Your task to perform on an android device: Open privacy settings Image 0: 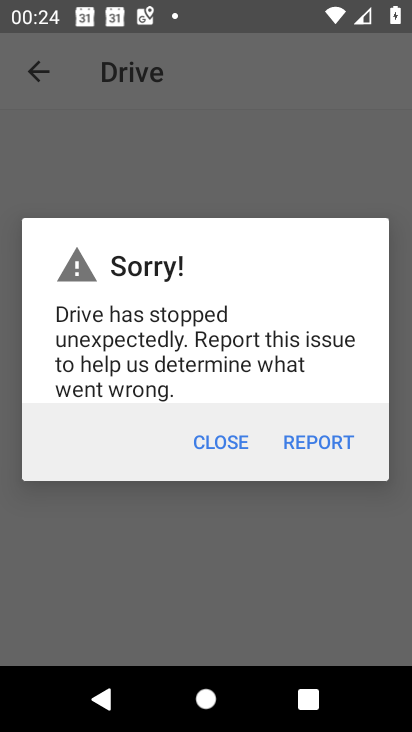
Step 0: press home button
Your task to perform on an android device: Open privacy settings Image 1: 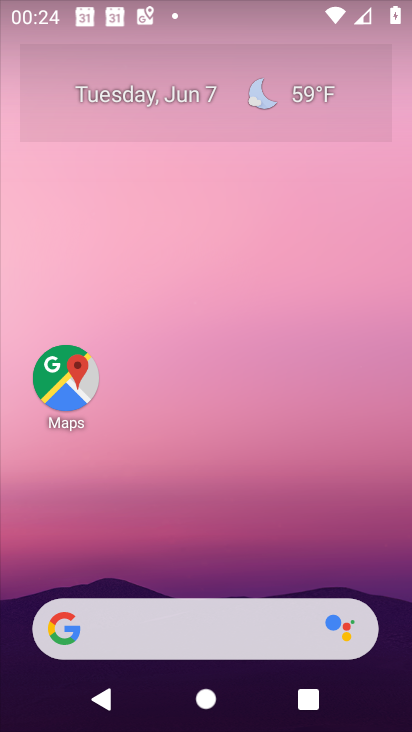
Step 1: drag from (277, 222) to (279, 175)
Your task to perform on an android device: Open privacy settings Image 2: 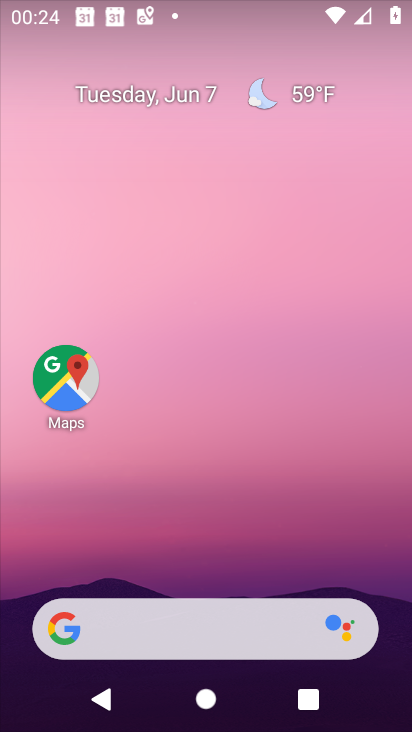
Step 2: drag from (210, 528) to (238, 19)
Your task to perform on an android device: Open privacy settings Image 3: 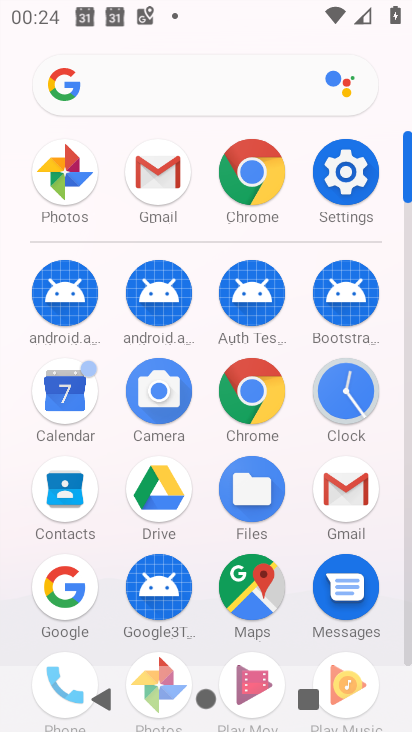
Step 3: click (338, 171)
Your task to perform on an android device: Open privacy settings Image 4: 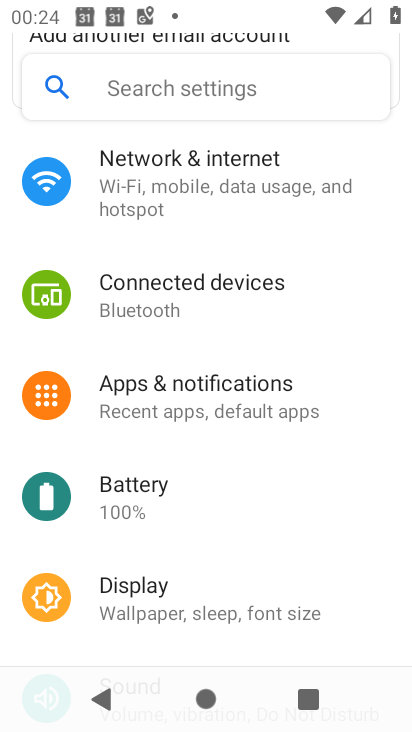
Step 4: drag from (247, 517) to (196, 192)
Your task to perform on an android device: Open privacy settings Image 5: 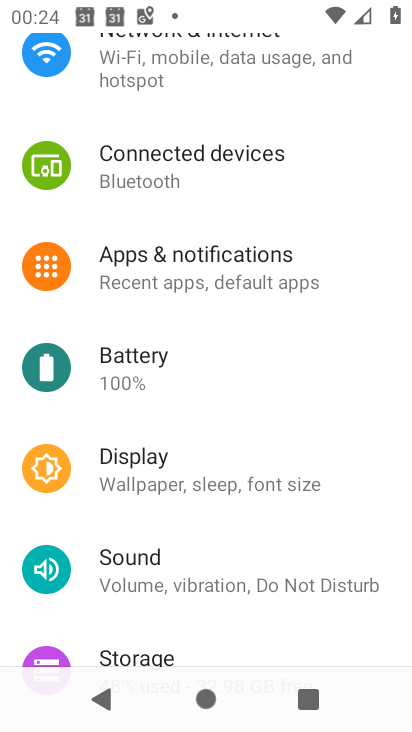
Step 5: drag from (222, 599) to (193, 231)
Your task to perform on an android device: Open privacy settings Image 6: 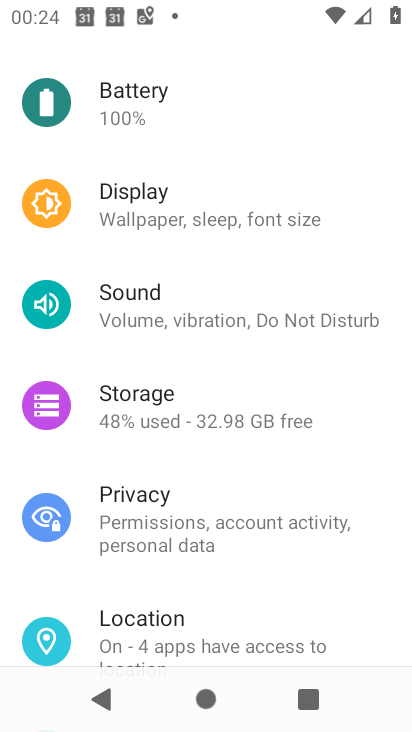
Step 6: click (187, 529)
Your task to perform on an android device: Open privacy settings Image 7: 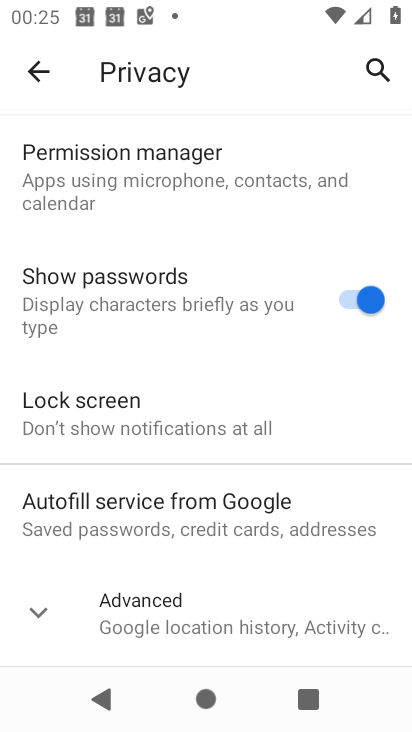
Step 7: task complete